Your task to perform on an android device: delete location history Image 0: 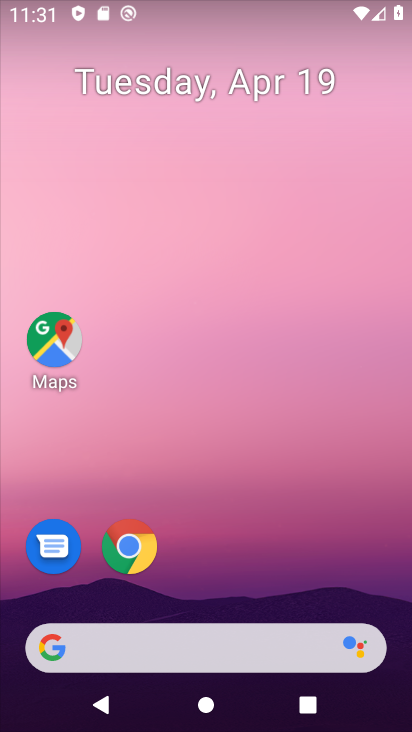
Step 0: drag from (380, 419) to (360, 56)
Your task to perform on an android device: delete location history Image 1: 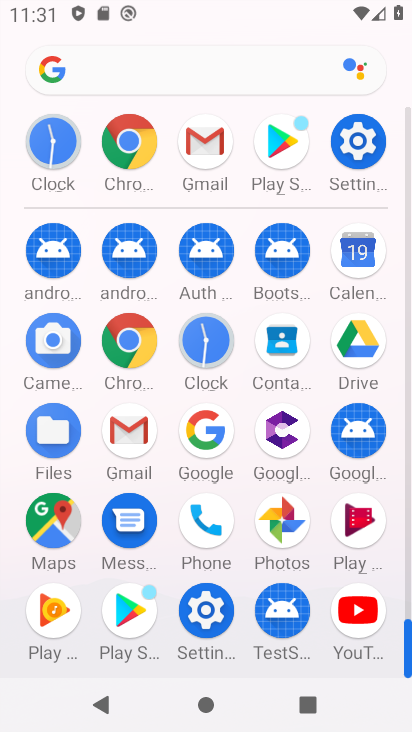
Step 1: drag from (3, 595) to (3, 423)
Your task to perform on an android device: delete location history Image 2: 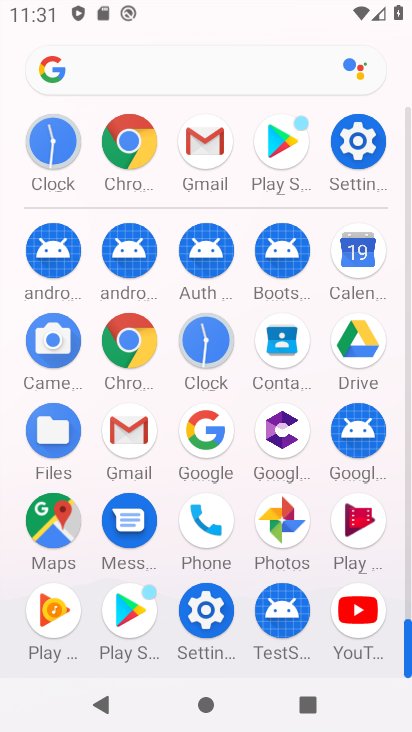
Step 2: click (204, 606)
Your task to perform on an android device: delete location history Image 3: 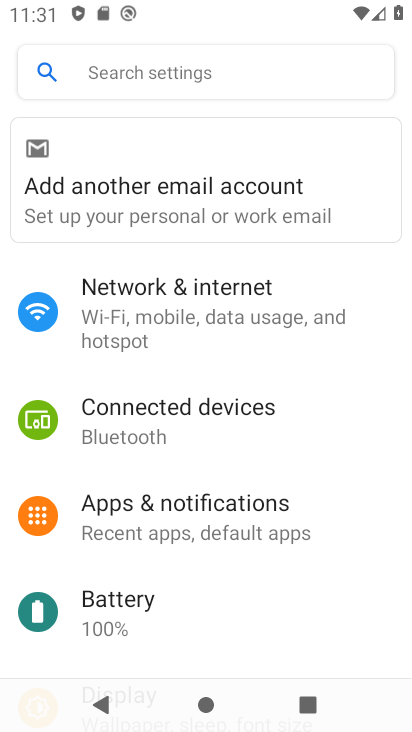
Step 3: drag from (303, 522) to (303, 215)
Your task to perform on an android device: delete location history Image 4: 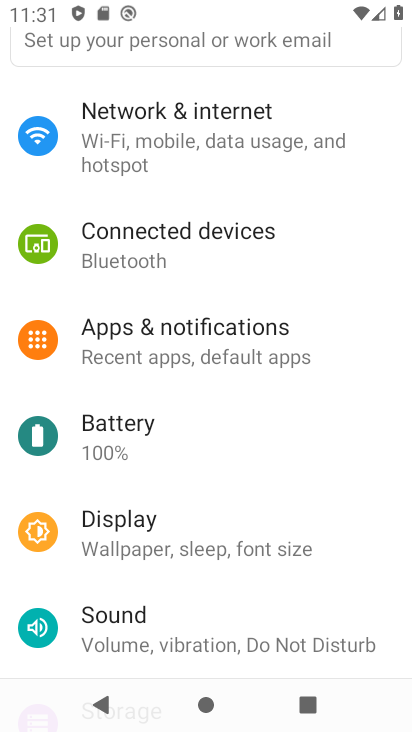
Step 4: drag from (224, 529) to (282, 226)
Your task to perform on an android device: delete location history Image 5: 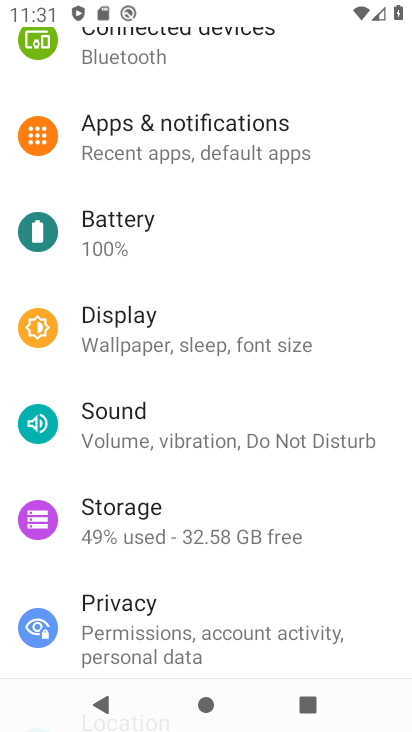
Step 5: drag from (280, 468) to (244, 167)
Your task to perform on an android device: delete location history Image 6: 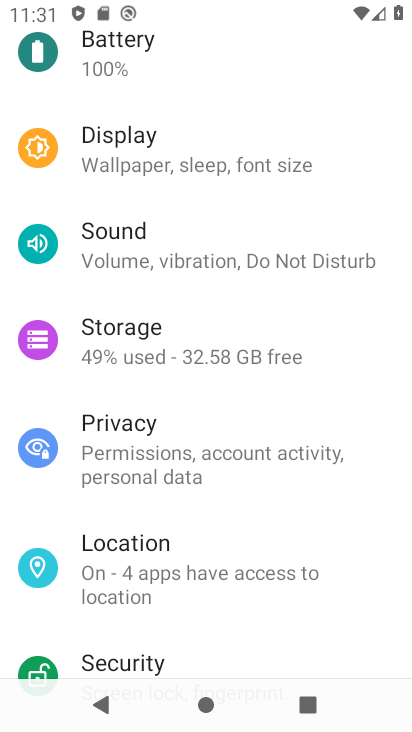
Step 6: click (218, 578)
Your task to perform on an android device: delete location history Image 7: 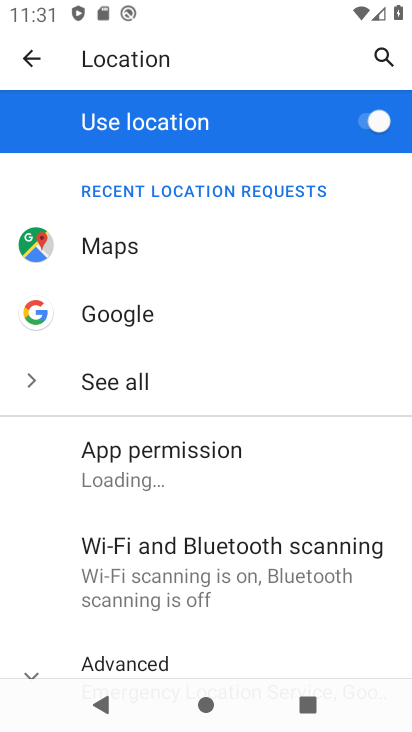
Step 7: drag from (219, 577) to (270, 215)
Your task to perform on an android device: delete location history Image 8: 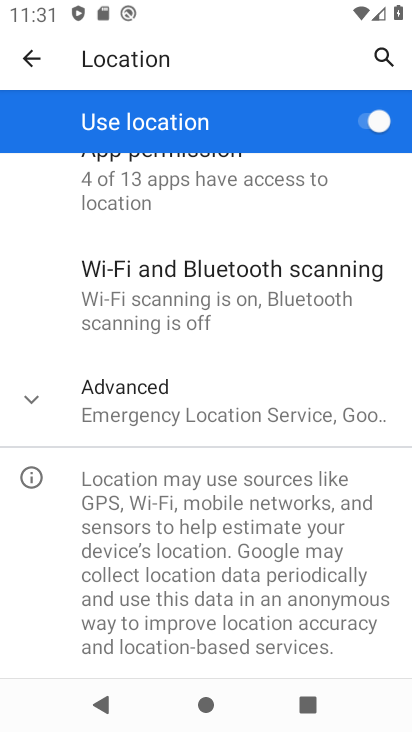
Step 8: click (227, 419)
Your task to perform on an android device: delete location history Image 9: 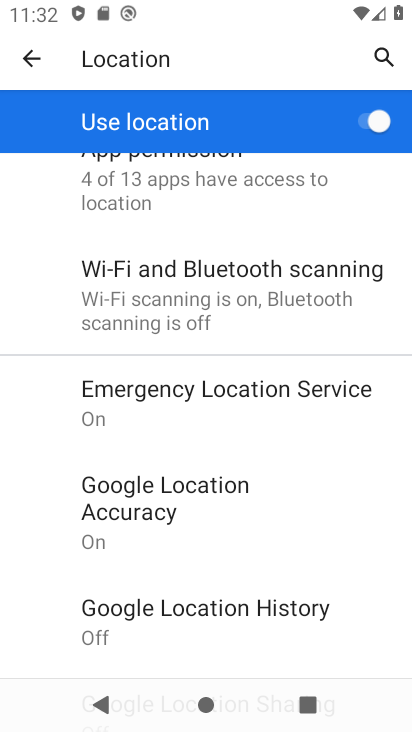
Step 9: click (229, 617)
Your task to perform on an android device: delete location history Image 10: 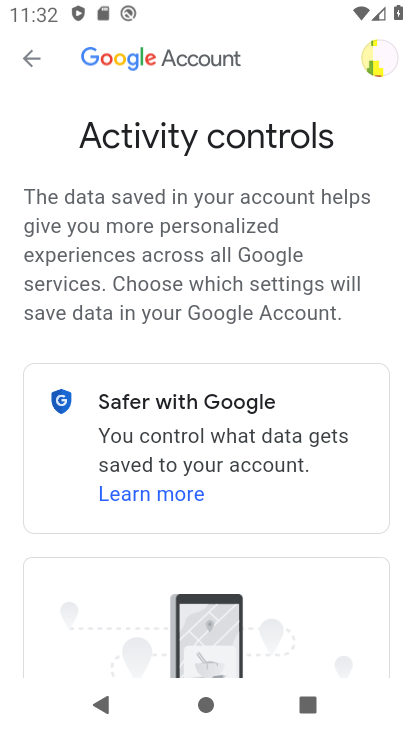
Step 10: drag from (281, 570) to (251, 148)
Your task to perform on an android device: delete location history Image 11: 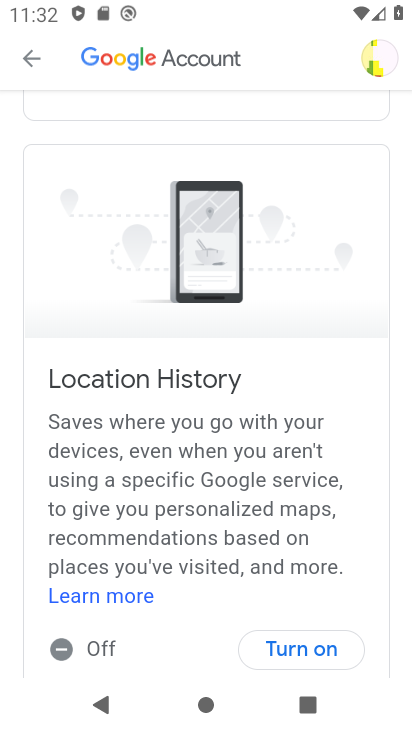
Step 11: drag from (266, 470) to (274, 153)
Your task to perform on an android device: delete location history Image 12: 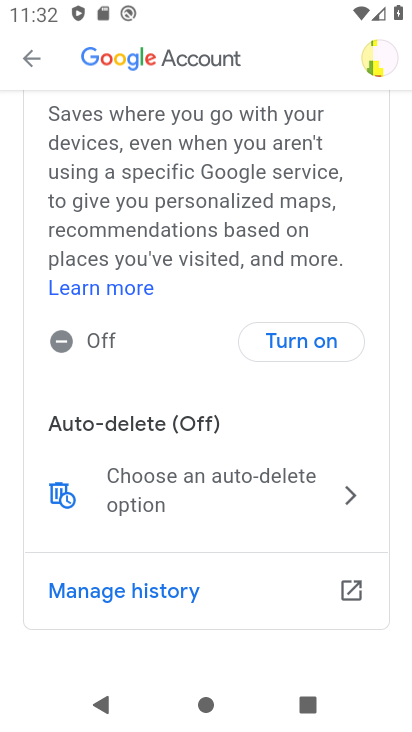
Step 12: drag from (178, 533) to (190, 205)
Your task to perform on an android device: delete location history Image 13: 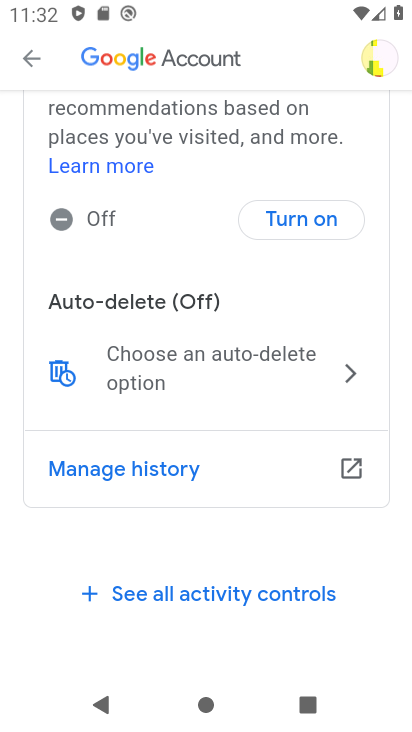
Step 13: click (120, 342)
Your task to perform on an android device: delete location history Image 14: 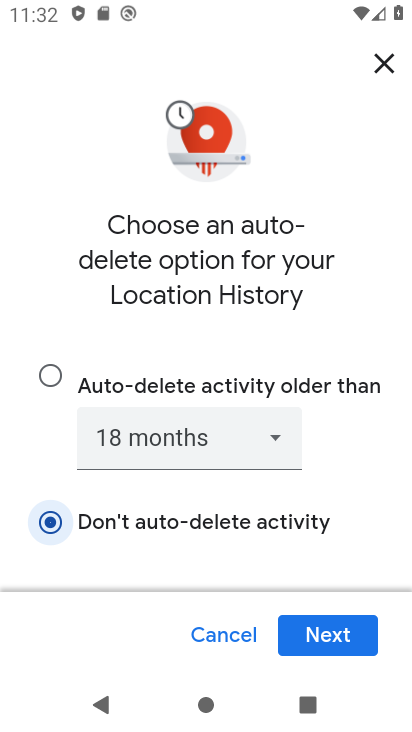
Step 14: click (337, 675)
Your task to perform on an android device: delete location history Image 15: 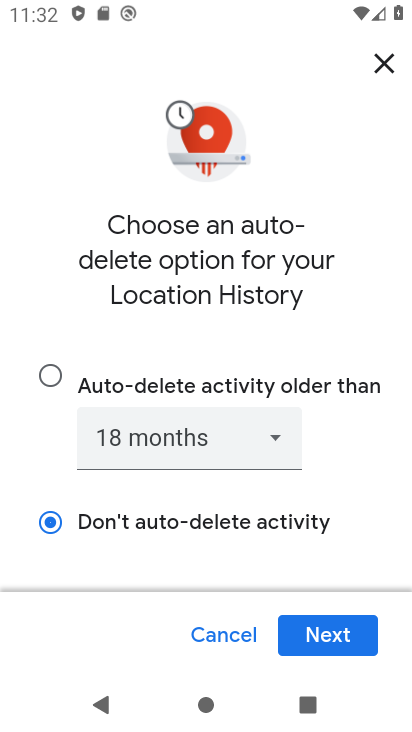
Step 15: click (340, 649)
Your task to perform on an android device: delete location history Image 16: 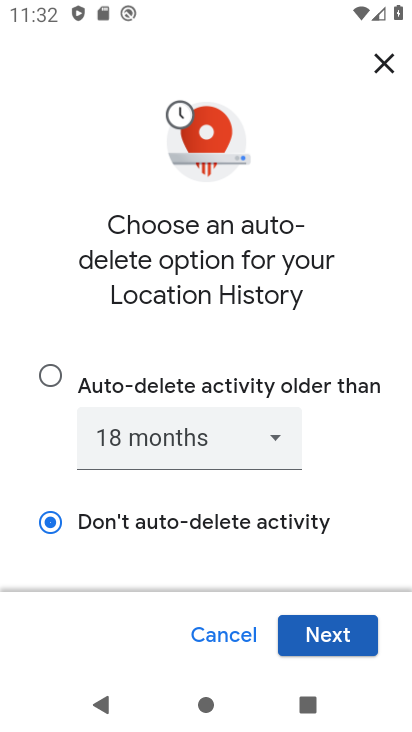
Step 16: click (337, 638)
Your task to perform on an android device: delete location history Image 17: 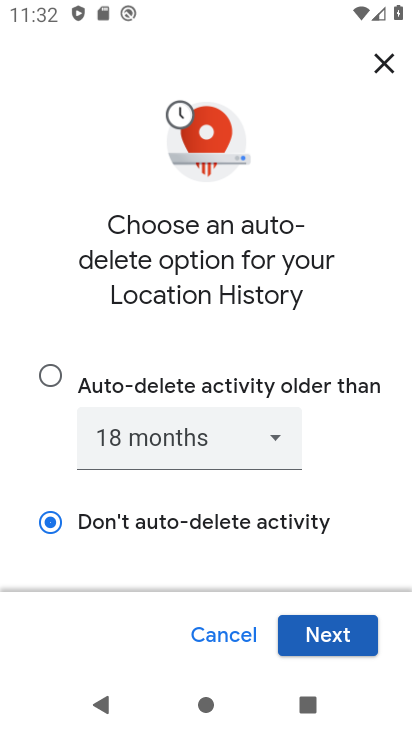
Step 17: click (340, 640)
Your task to perform on an android device: delete location history Image 18: 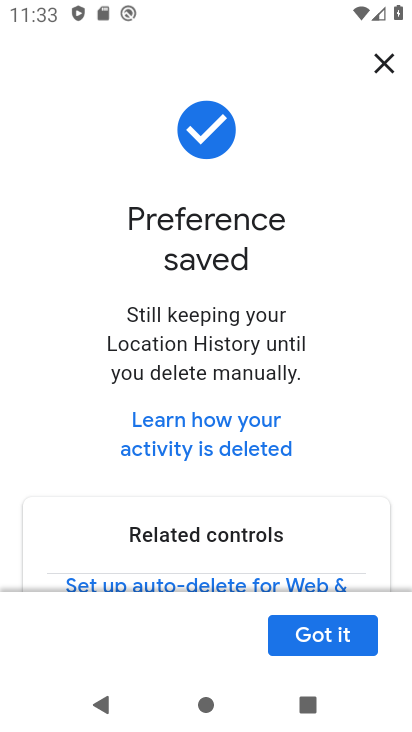
Step 18: task complete